Your task to perform on an android device: Go to battery settings Image 0: 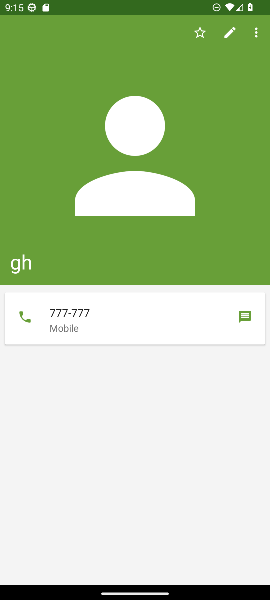
Step 0: press home button
Your task to perform on an android device: Go to battery settings Image 1: 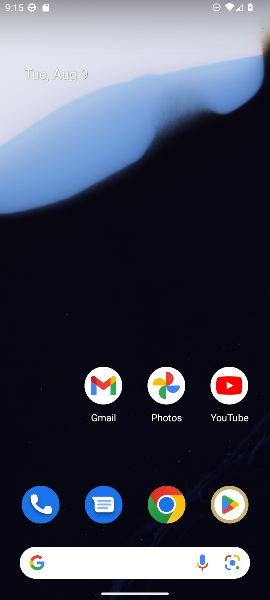
Step 1: drag from (140, 498) to (76, 71)
Your task to perform on an android device: Go to battery settings Image 2: 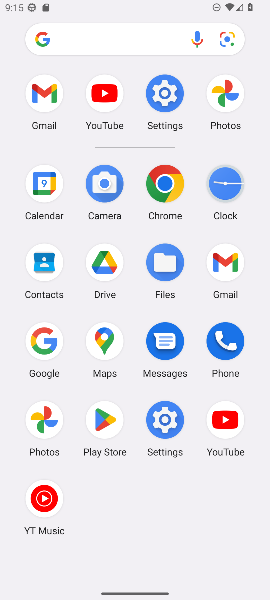
Step 2: click (166, 91)
Your task to perform on an android device: Go to battery settings Image 3: 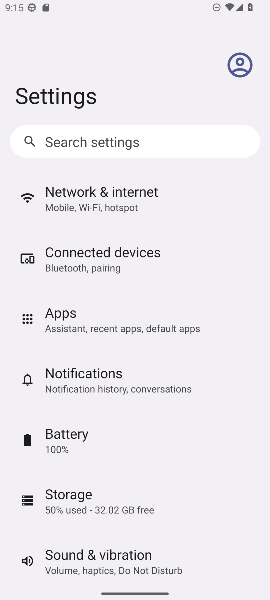
Step 3: click (58, 430)
Your task to perform on an android device: Go to battery settings Image 4: 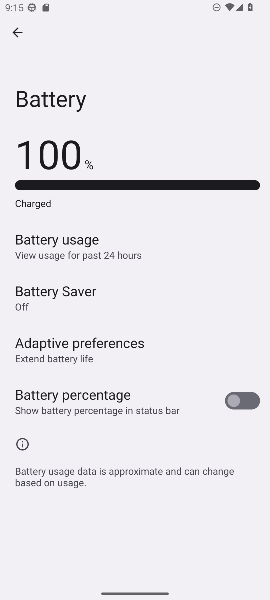
Step 4: task complete